Your task to perform on an android device: toggle data saver in the chrome app Image 0: 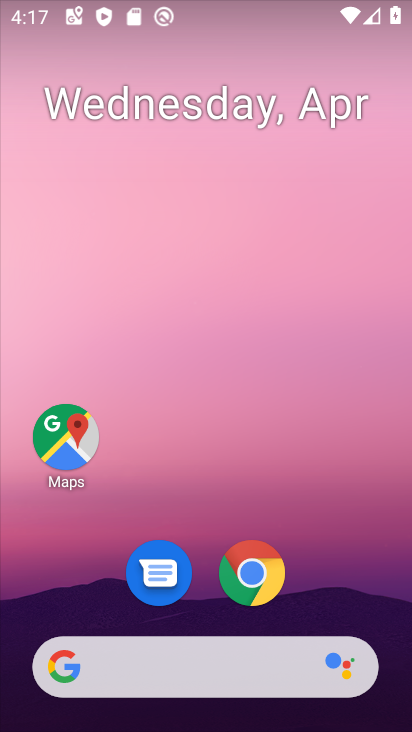
Step 0: click (255, 572)
Your task to perform on an android device: toggle data saver in the chrome app Image 1: 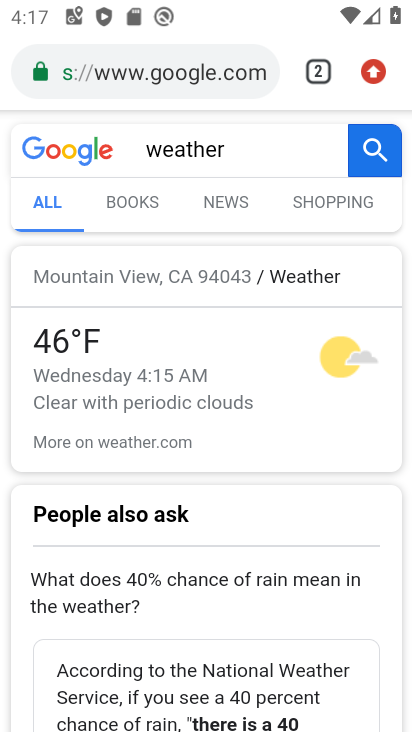
Step 1: click (372, 76)
Your task to perform on an android device: toggle data saver in the chrome app Image 2: 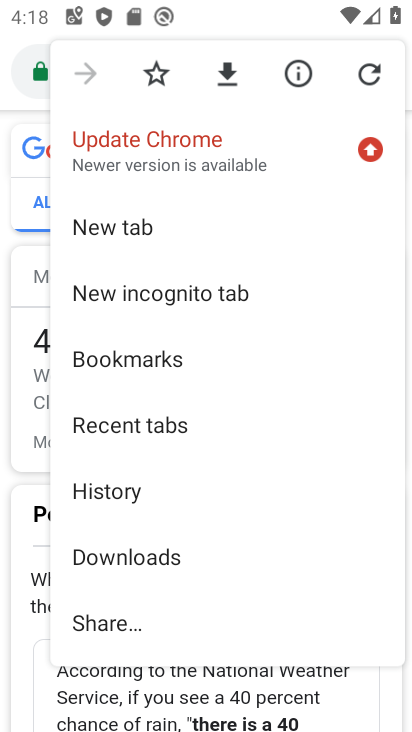
Step 2: drag from (207, 420) to (229, 108)
Your task to perform on an android device: toggle data saver in the chrome app Image 3: 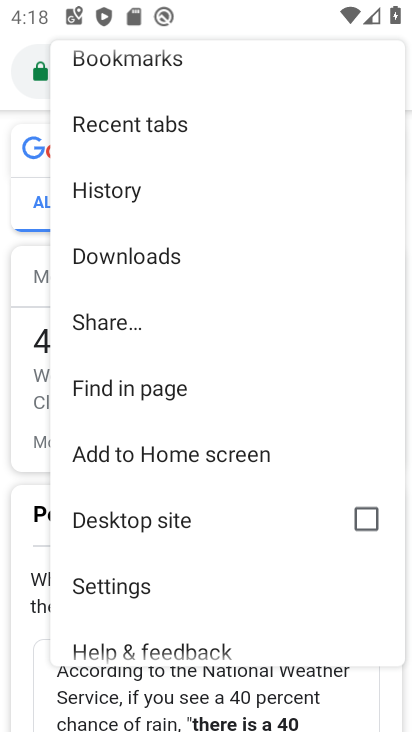
Step 3: drag from (203, 499) to (220, 189)
Your task to perform on an android device: toggle data saver in the chrome app Image 4: 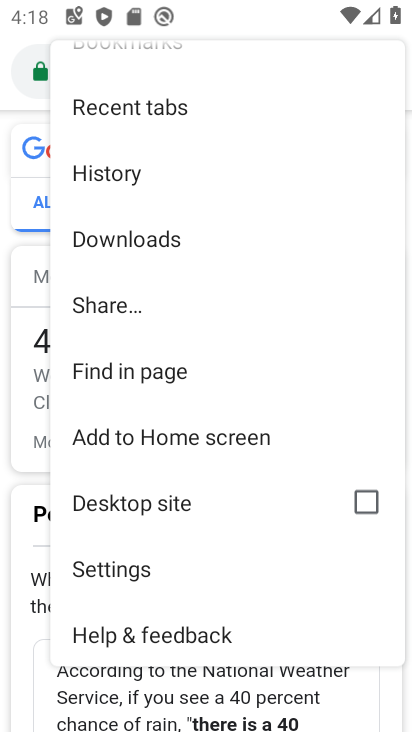
Step 4: click (129, 571)
Your task to perform on an android device: toggle data saver in the chrome app Image 5: 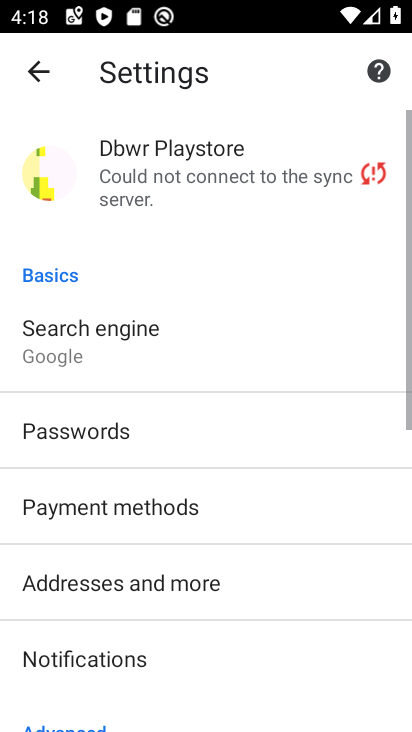
Step 5: drag from (250, 587) to (264, 135)
Your task to perform on an android device: toggle data saver in the chrome app Image 6: 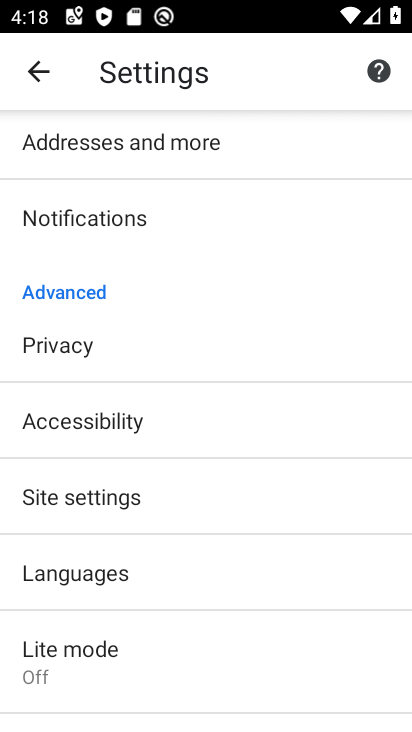
Step 6: drag from (228, 535) to (238, 249)
Your task to perform on an android device: toggle data saver in the chrome app Image 7: 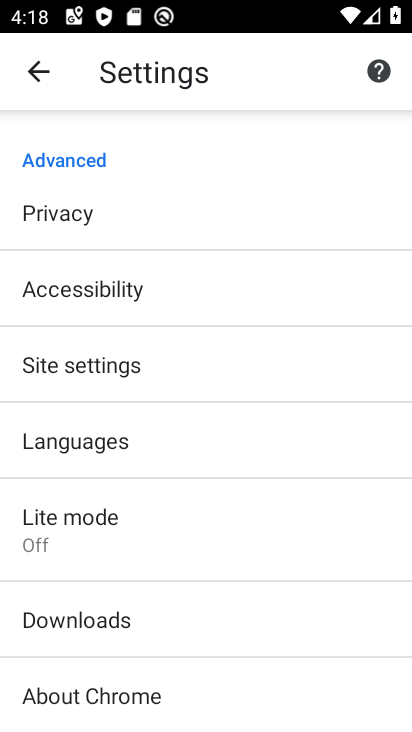
Step 7: click (65, 529)
Your task to perform on an android device: toggle data saver in the chrome app Image 8: 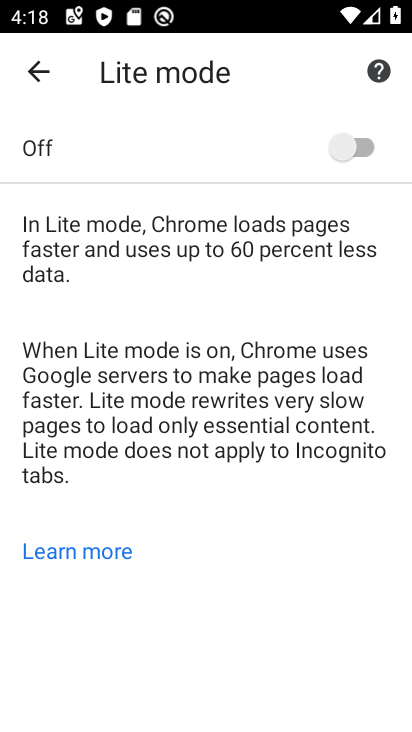
Step 8: click (353, 144)
Your task to perform on an android device: toggle data saver in the chrome app Image 9: 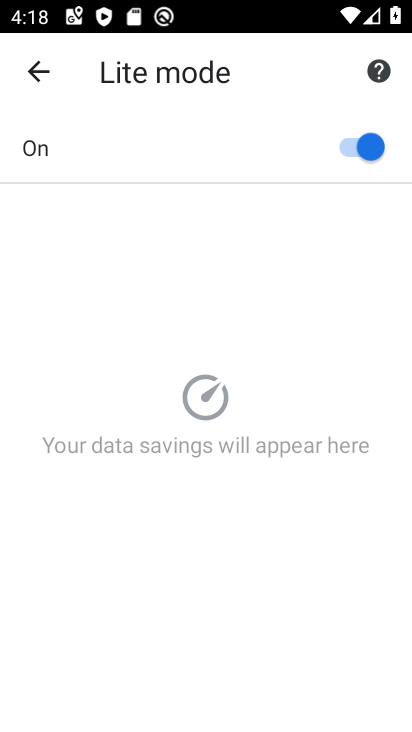
Step 9: task complete